Your task to perform on an android device: Go to sound settings Image 0: 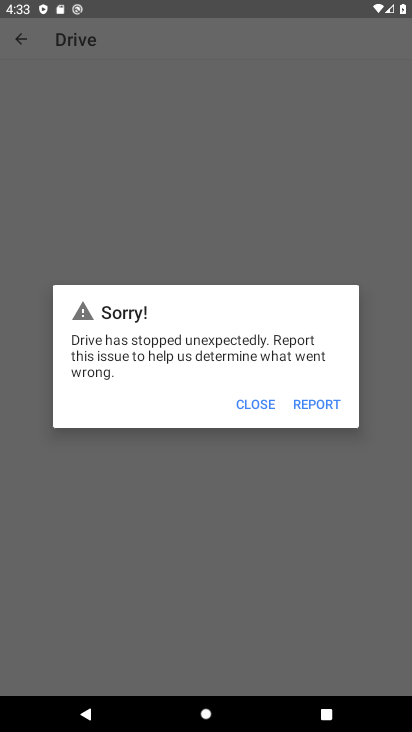
Step 0: press home button
Your task to perform on an android device: Go to sound settings Image 1: 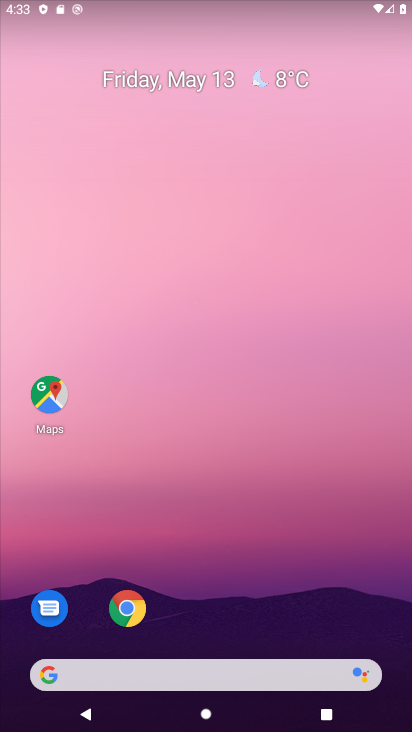
Step 1: drag from (271, 591) to (215, 151)
Your task to perform on an android device: Go to sound settings Image 2: 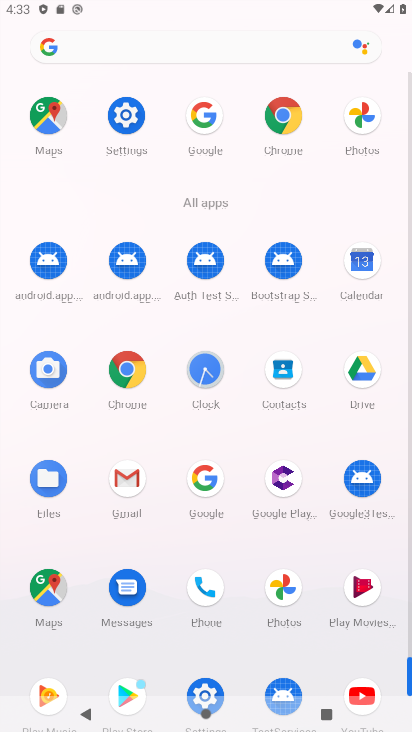
Step 2: drag from (174, 630) to (160, 337)
Your task to perform on an android device: Go to sound settings Image 3: 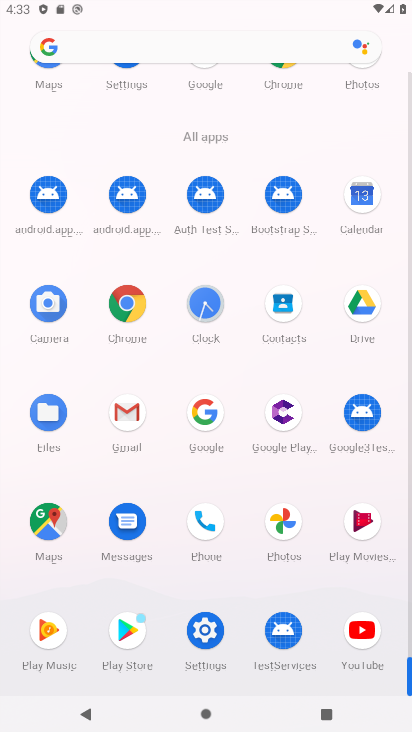
Step 3: click (205, 630)
Your task to perform on an android device: Go to sound settings Image 4: 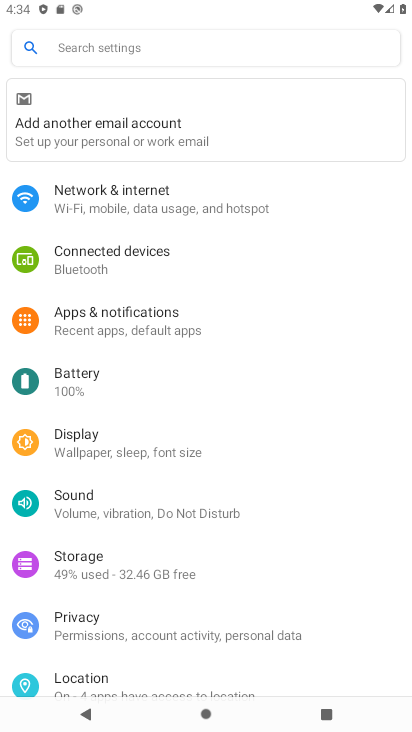
Step 4: click (89, 493)
Your task to perform on an android device: Go to sound settings Image 5: 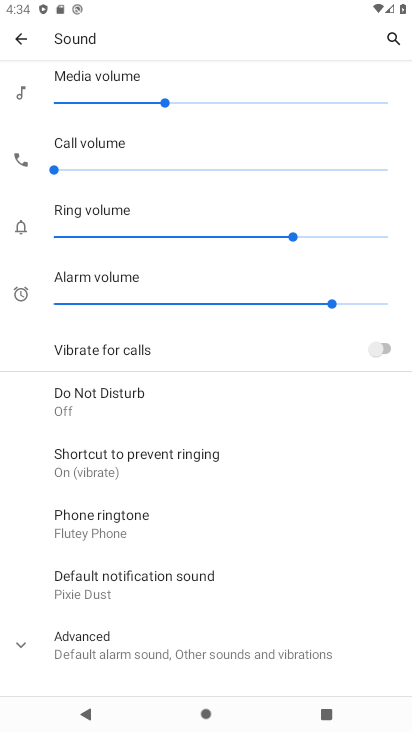
Step 5: task complete